Your task to perform on an android device: Open Google Chrome and open the bookmarks view Image 0: 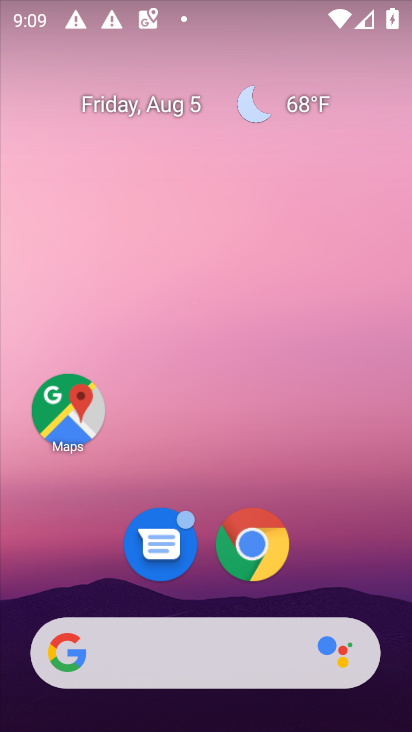
Step 0: drag from (251, 542) to (274, 98)
Your task to perform on an android device: Open Google Chrome and open the bookmarks view Image 1: 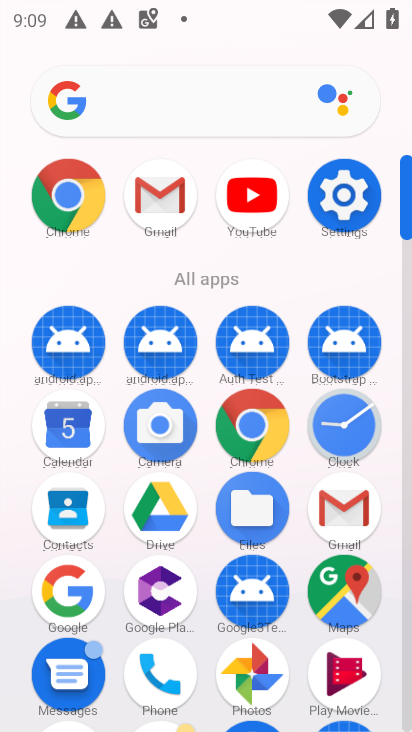
Step 1: click (71, 205)
Your task to perform on an android device: Open Google Chrome and open the bookmarks view Image 2: 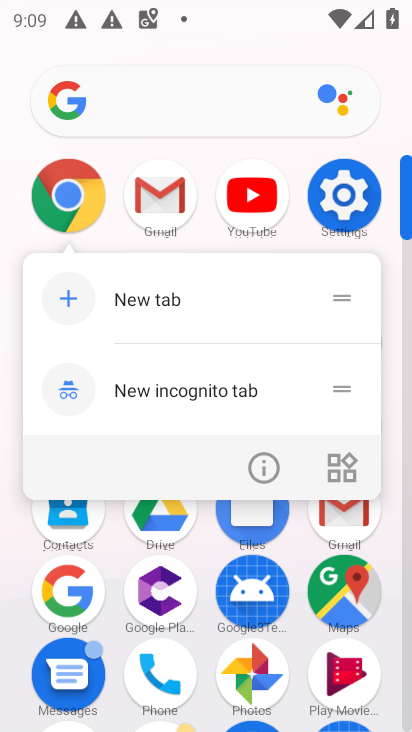
Step 2: click (71, 201)
Your task to perform on an android device: Open Google Chrome and open the bookmarks view Image 3: 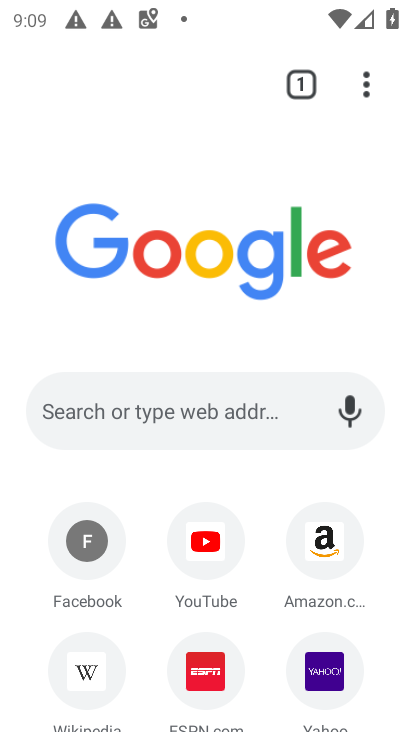
Step 3: drag from (365, 98) to (189, 339)
Your task to perform on an android device: Open Google Chrome and open the bookmarks view Image 4: 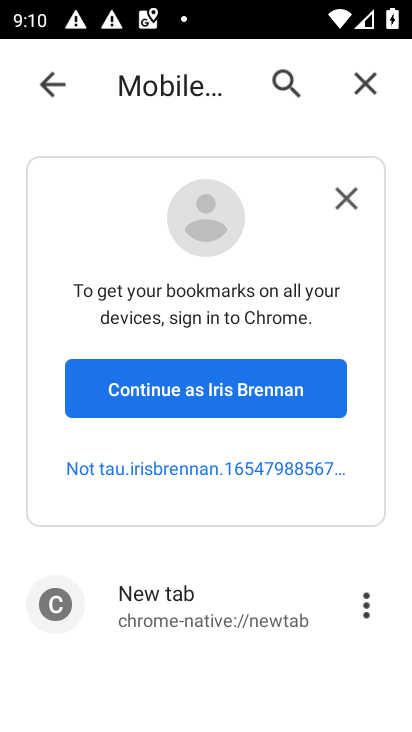
Step 4: click (288, 397)
Your task to perform on an android device: Open Google Chrome and open the bookmarks view Image 5: 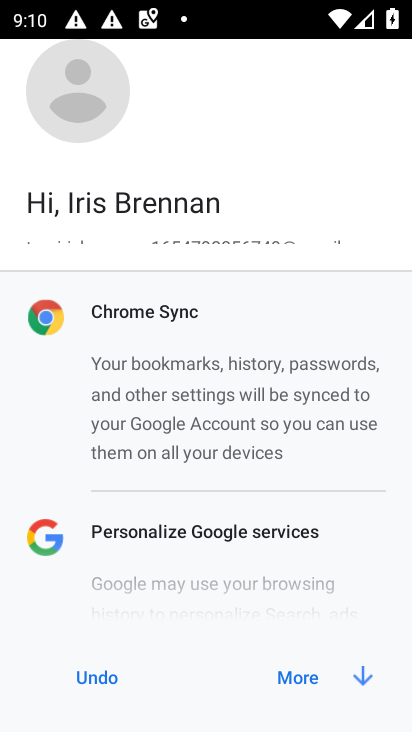
Step 5: click (290, 685)
Your task to perform on an android device: Open Google Chrome and open the bookmarks view Image 6: 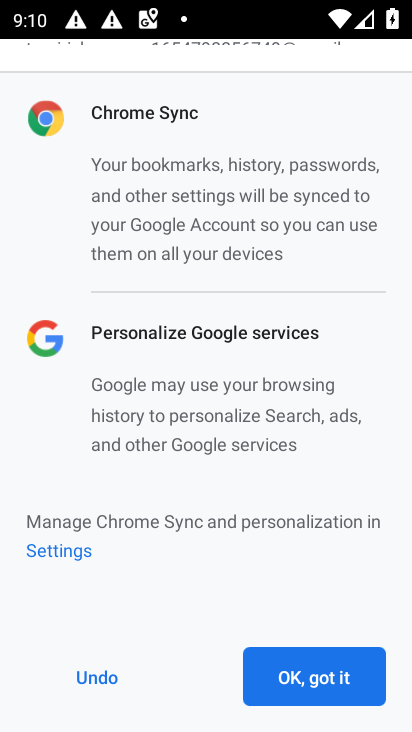
Step 6: click (283, 680)
Your task to perform on an android device: Open Google Chrome and open the bookmarks view Image 7: 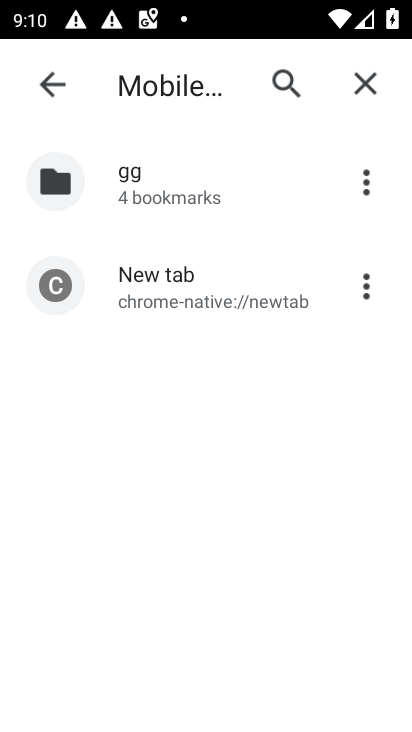
Step 7: task complete